Your task to perform on an android device: Do I have any events today? Image 0: 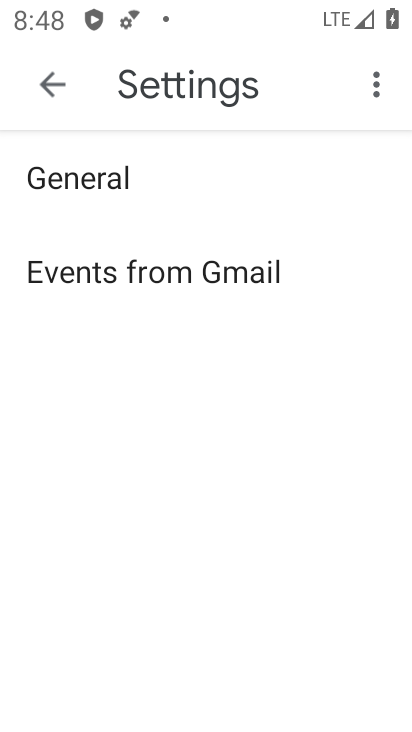
Step 0: press home button
Your task to perform on an android device: Do I have any events today? Image 1: 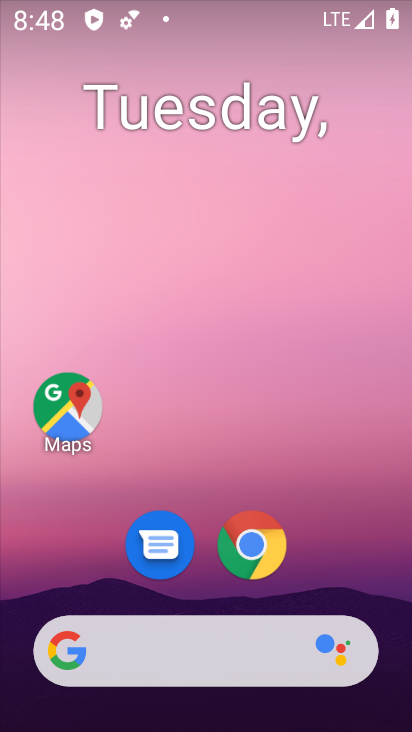
Step 1: drag from (169, 473) to (160, 26)
Your task to perform on an android device: Do I have any events today? Image 2: 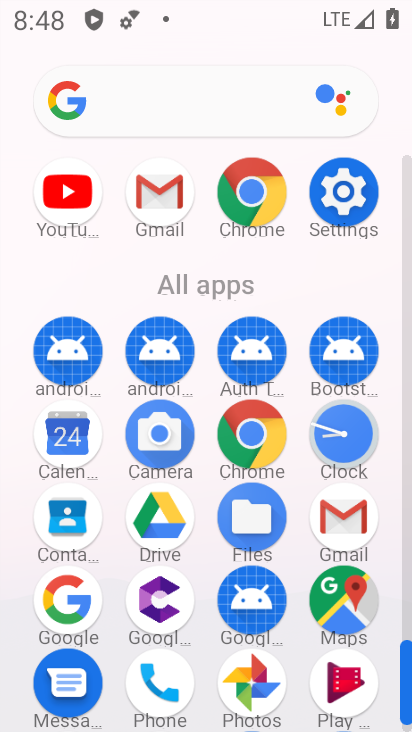
Step 2: click (69, 436)
Your task to perform on an android device: Do I have any events today? Image 3: 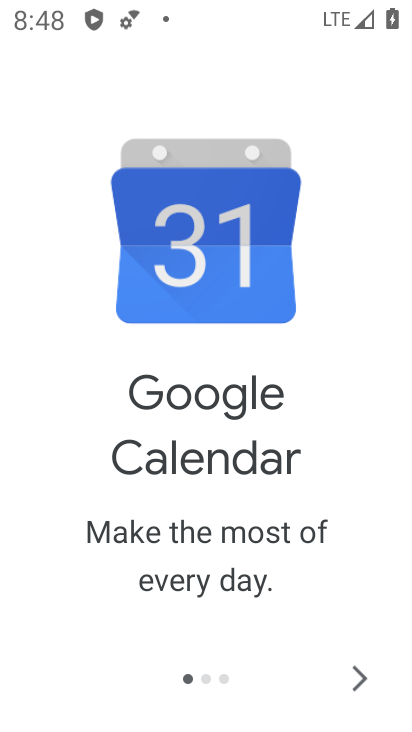
Step 3: click (353, 672)
Your task to perform on an android device: Do I have any events today? Image 4: 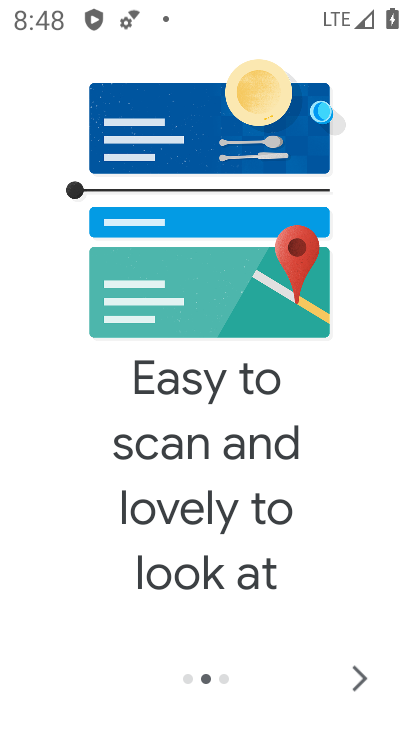
Step 4: click (353, 670)
Your task to perform on an android device: Do I have any events today? Image 5: 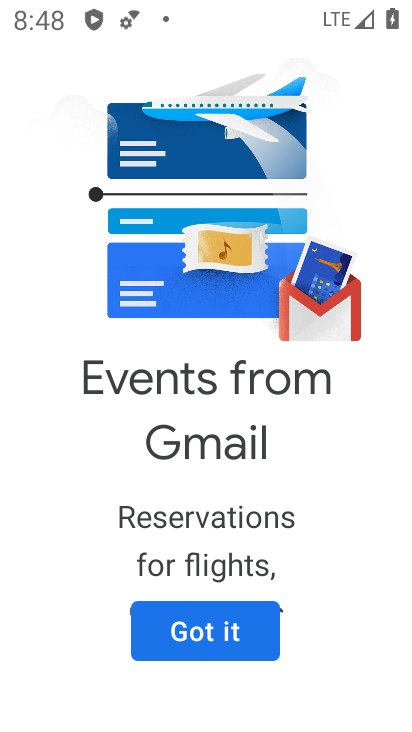
Step 5: click (276, 624)
Your task to perform on an android device: Do I have any events today? Image 6: 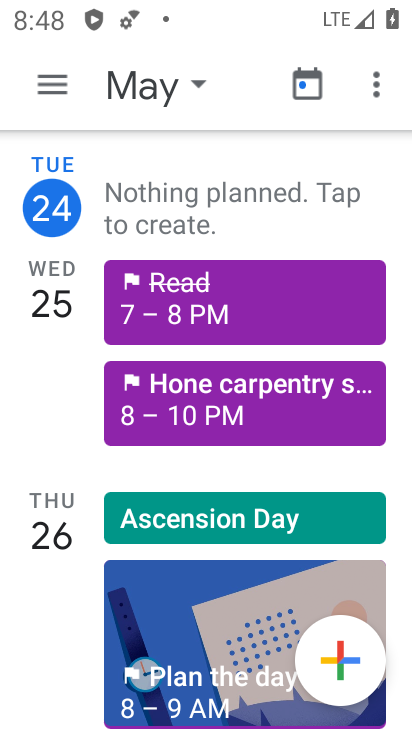
Step 6: click (141, 92)
Your task to perform on an android device: Do I have any events today? Image 7: 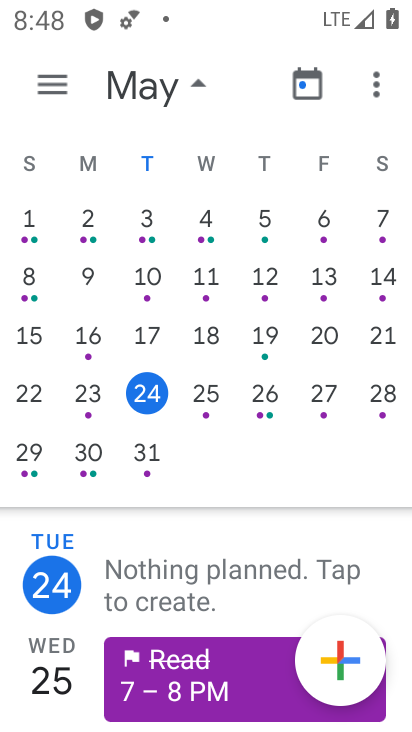
Step 7: click (138, 393)
Your task to perform on an android device: Do I have any events today? Image 8: 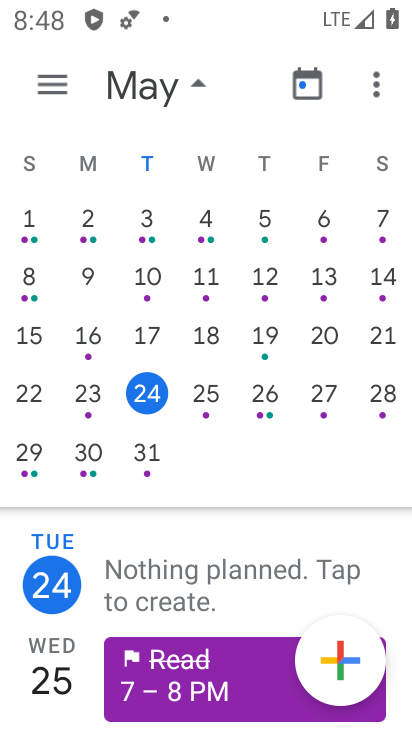
Step 8: click (149, 394)
Your task to perform on an android device: Do I have any events today? Image 9: 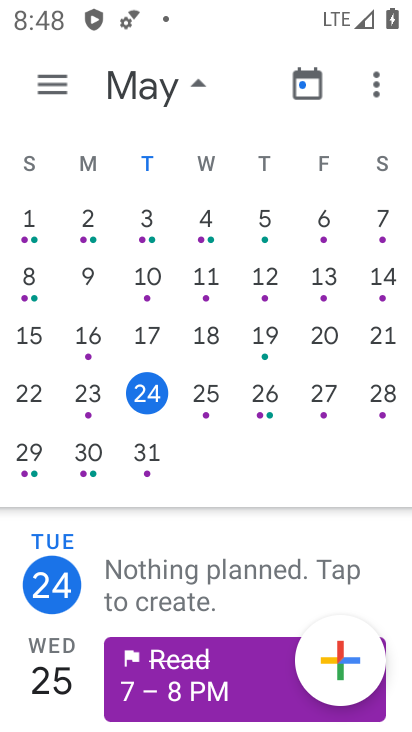
Step 9: task complete